Your task to perform on an android device: toggle wifi Image 0: 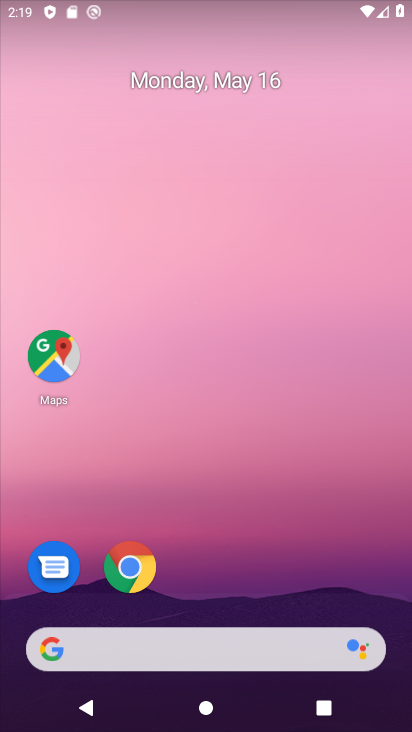
Step 0: drag from (259, 4) to (275, 612)
Your task to perform on an android device: toggle wifi Image 1: 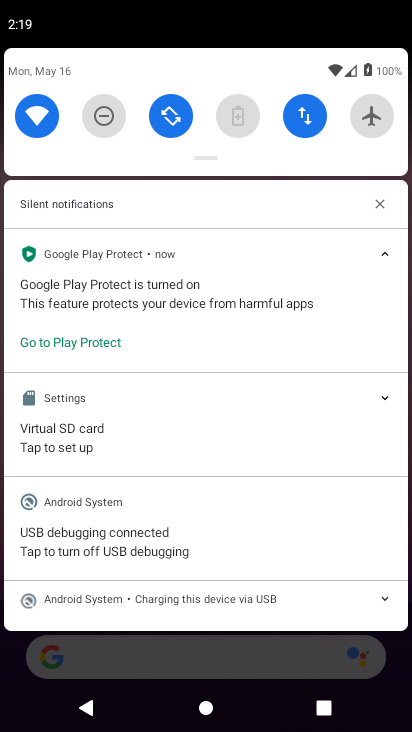
Step 1: click (40, 123)
Your task to perform on an android device: toggle wifi Image 2: 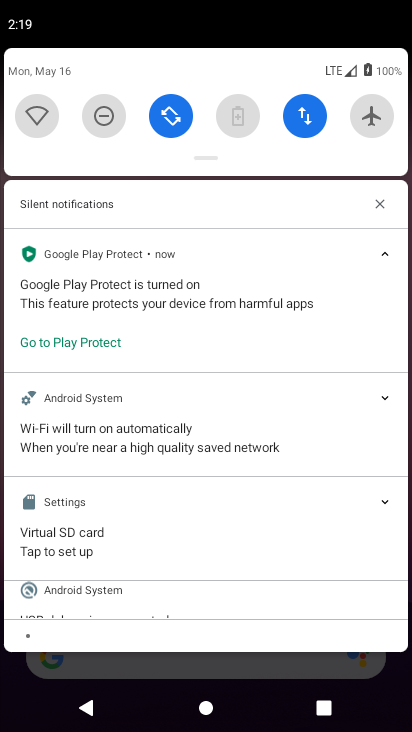
Step 2: task complete